Your task to perform on an android device: Open Youtube and go to "Your channel" Image 0: 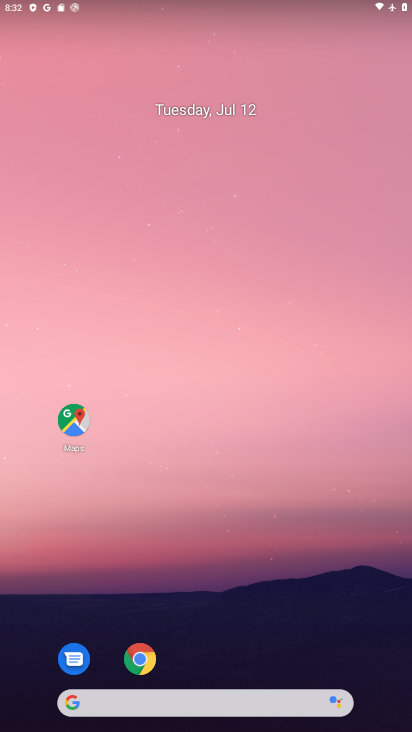
Step 0: drag from (276, 664) to (286, 238)
Your task to perform on an android device: Open Youtube and go to "Your channel" Image 1: 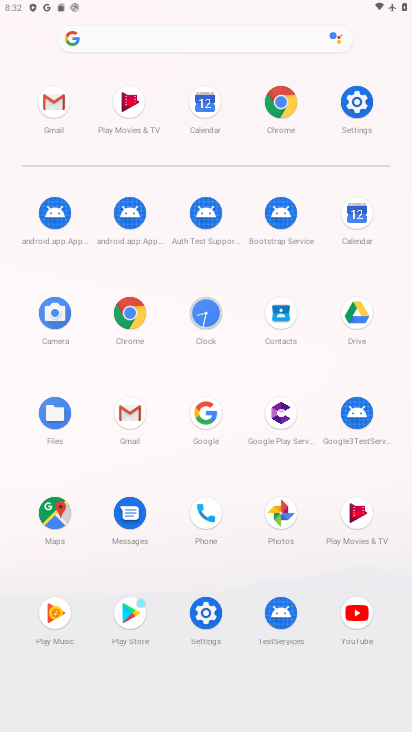
Step 1: click (360, 615)
Your task to perform on an android device: Open Youtube and go to "Your channel" Image 2: 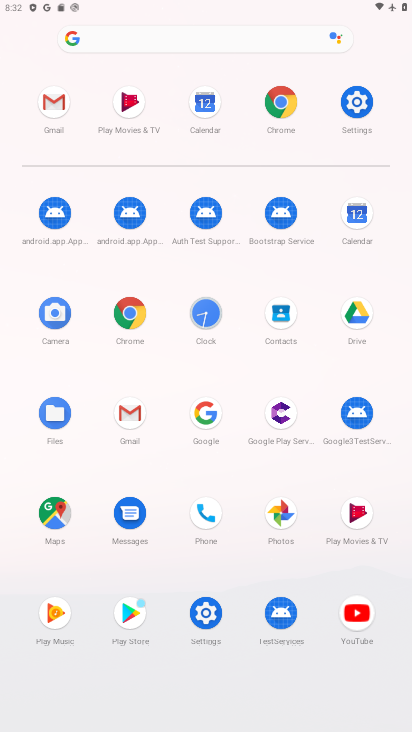
Step 2: click (360, 614)
Your task to perform on an android device: Open Youtube and go to "Your channel" Image 3: 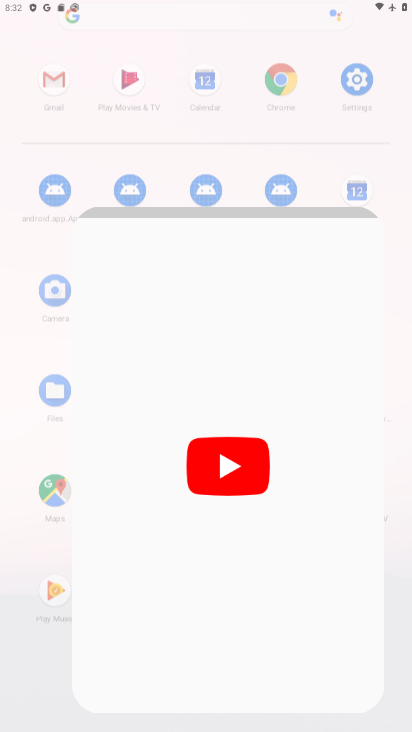
Step 3: click (361, 613)
Your task to perform on an android device: Open Youtube and go to "Your channel" Image 4: 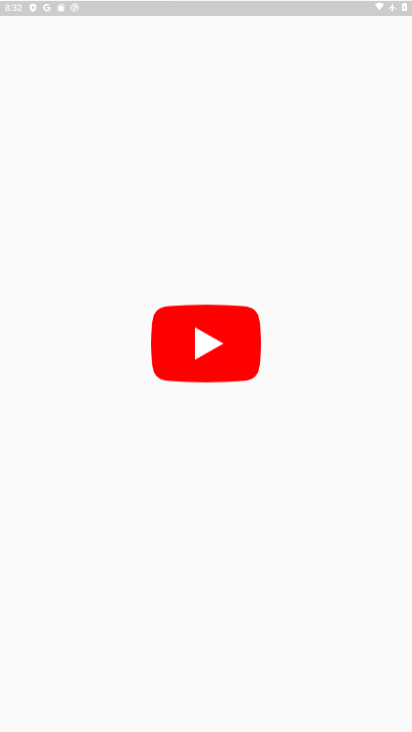
Step 4: click (363, 613)
Your task to perform on an android device: Open Youtube and go to "Your channel" Image 5: 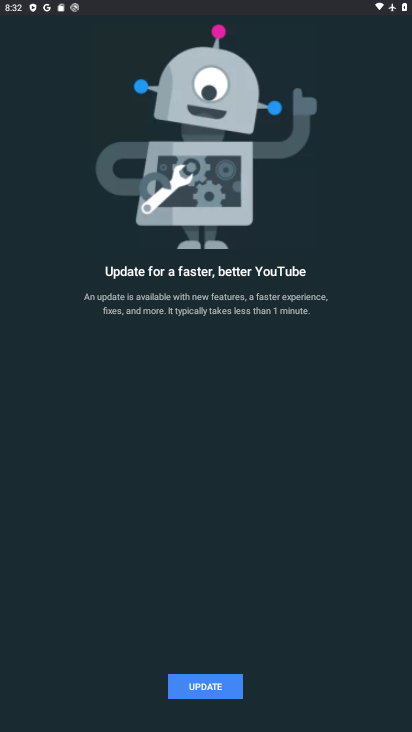
Step 5: press back button
Your task to perform on an android device: Open Youtube and go to "Your channel" Image 6: 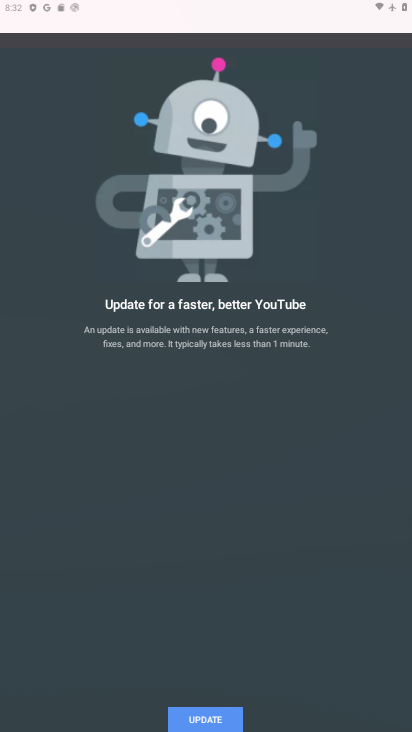
Step 6: press back button
Your task to perform on an android device: Open Youtube and go to "Your channel" Image 7: 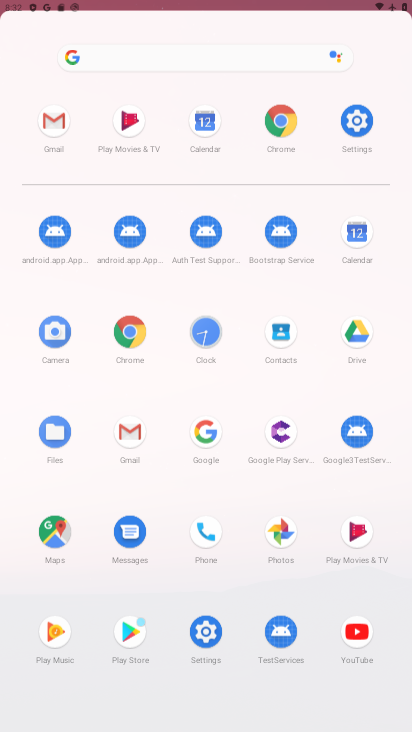
Step 7: press back button
Your task to perform on an android device: Open Youtube and go to "Your channel" Image 8: 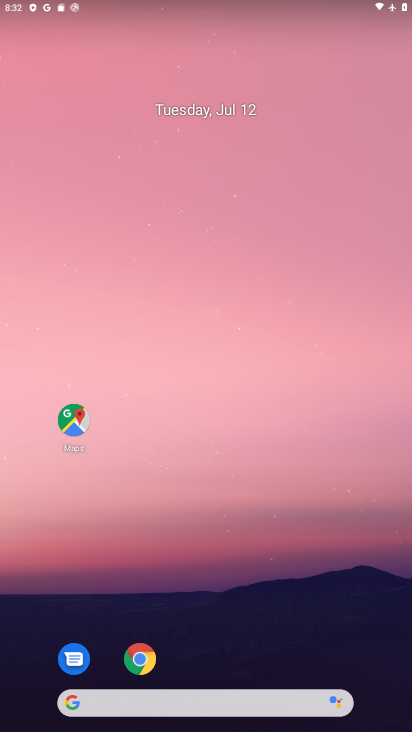
Step 8: drag from (143, 408) to (107, 36)
Your task to perform on an android device: Open Youtube and go to "Your channel" Image 9: 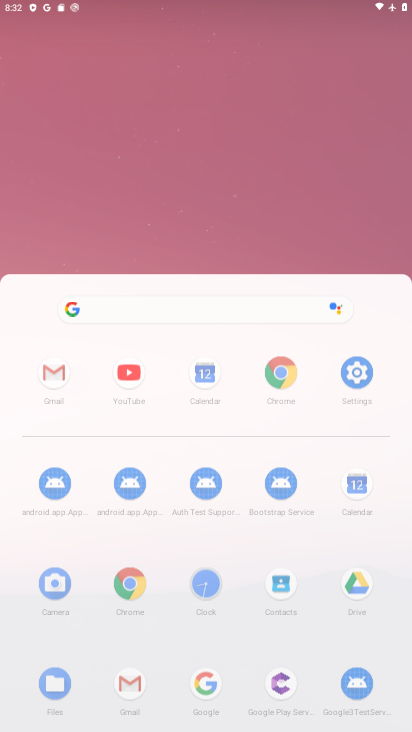
Step 9: drag from (318, 508) to (169, 69)
Your task to perform on an android device: Open Youtube and go to "Your channel" Image 10: 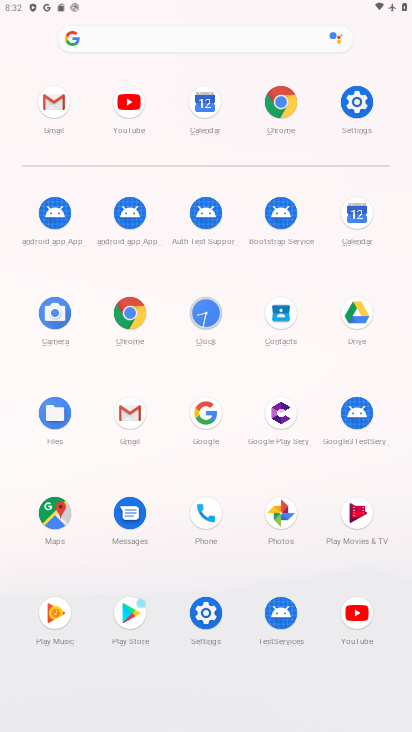
Step 10: click (355, 607)
Your task to perform on an android device: Open Youtube and go to "Your channel" Image 11: 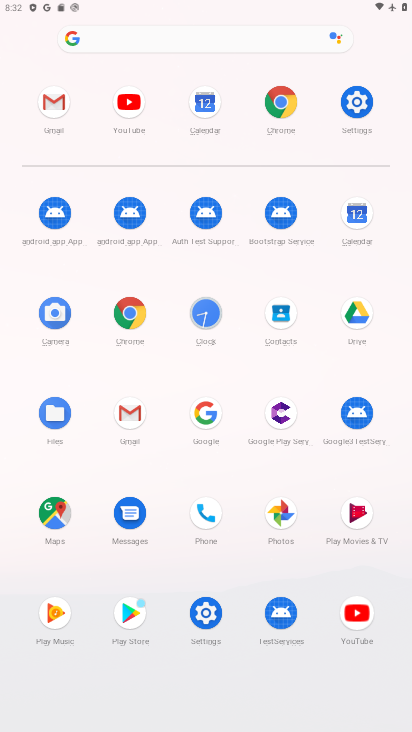
Step 11: click (358, 608)
Your task to perform on an android device: Open Youtube and go to "Your channel" Image 12: 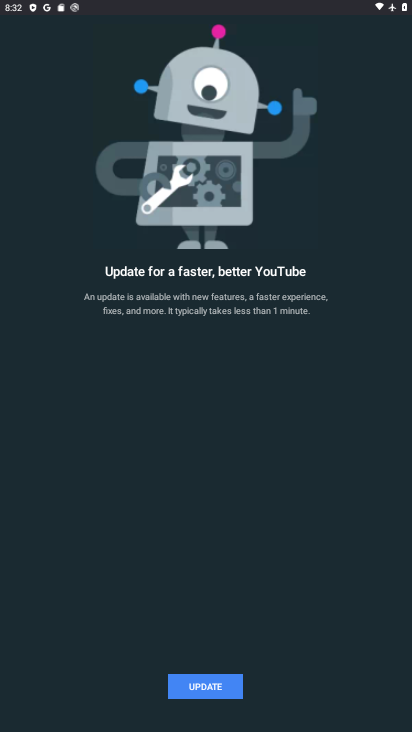
Step 12: click (359, 609)
Your task to perform on an android device: Open Youtube and go to "Your channel" Image 13: 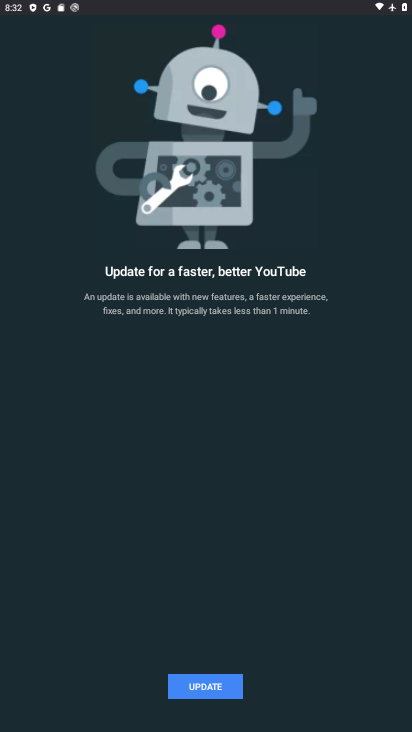
Step 13: click (359, 609)
Your task to perform on an android device: Open Youtube and go to "Your channel" Image 14: 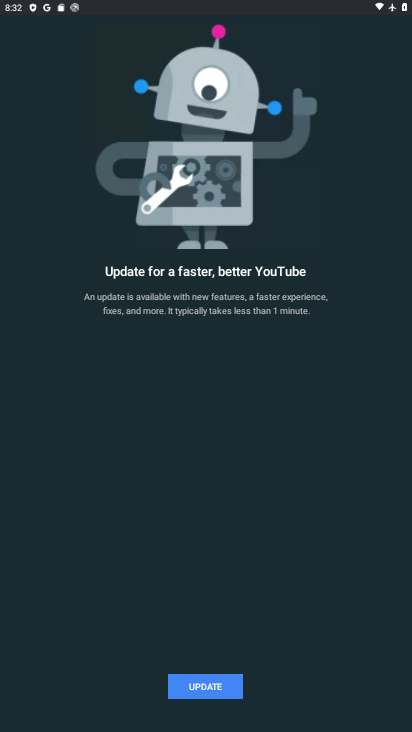
Step 14: click (213, 661)
Your task to perform on an android device: Open Youtube and go to "Your channel" Image 15: 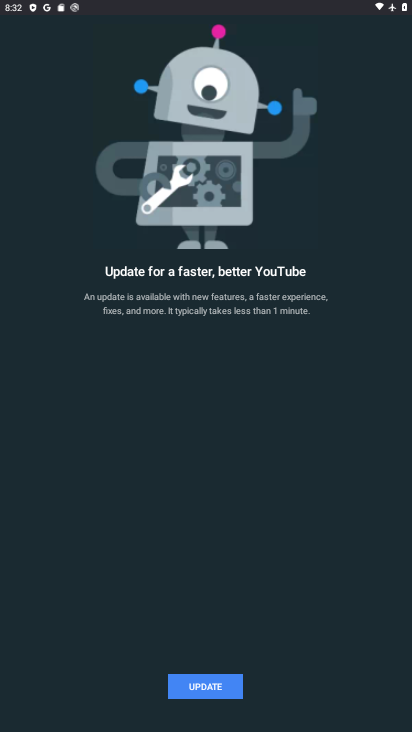
Step 15: click (217, 679)
Your task to perform on an android device: Open Youtube and go to "Your channel" Image 16: 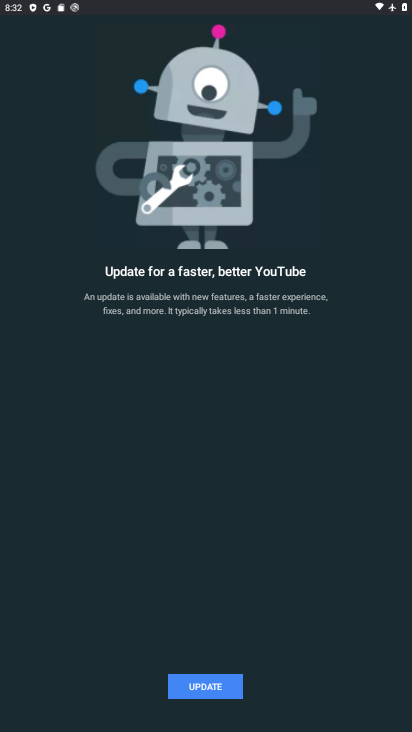
Step 16: click (209, 686)
Your task to perform on an android device: Open Youtube and go to "Your channel" Image 17: 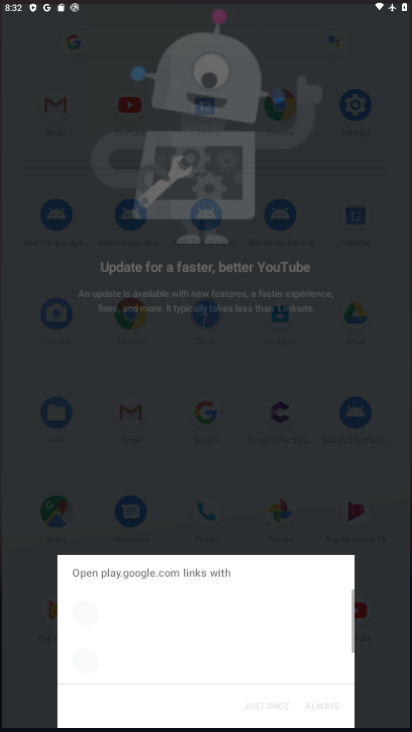
Step 17: click (211, 682)
Your task to perform on an android device: Open Youtube and go to "Your channel" Image 18: 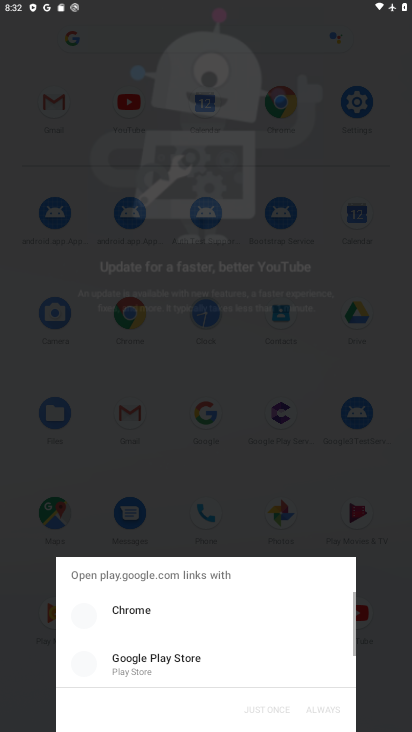
Step 18: click (212, 682)
Your task to perform on an android device: Open Youtube and go to "Your channel" Image 19: 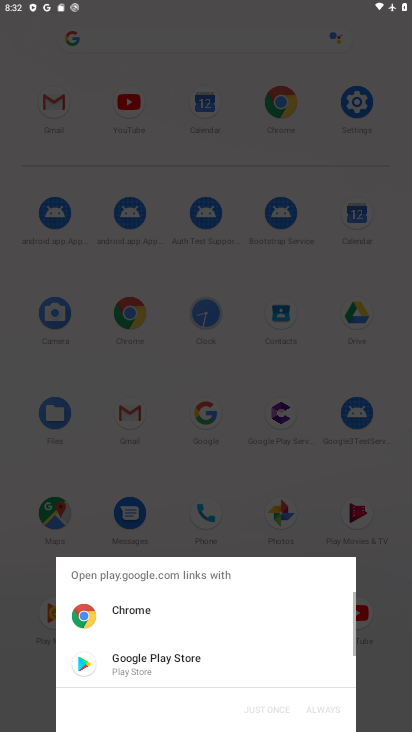
Step 19: click (230, 681)
Your task to perform on an android device: Open Youtube and go to "Your channel" Image 20: 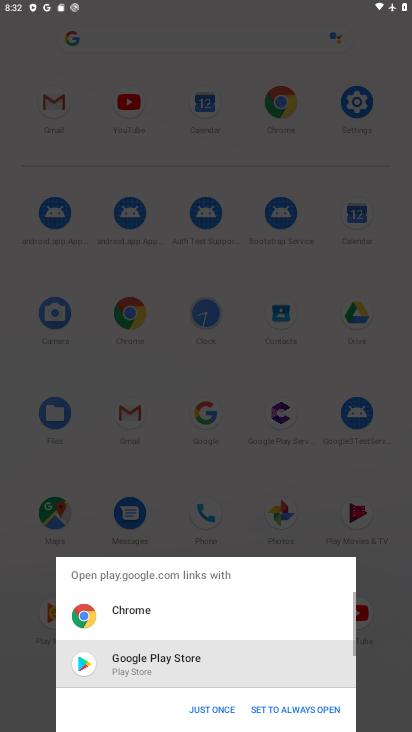
Step 20: click (117, 601)
Your task to perform on an android device: Open Youtube and go to "Your channel" Image 21: 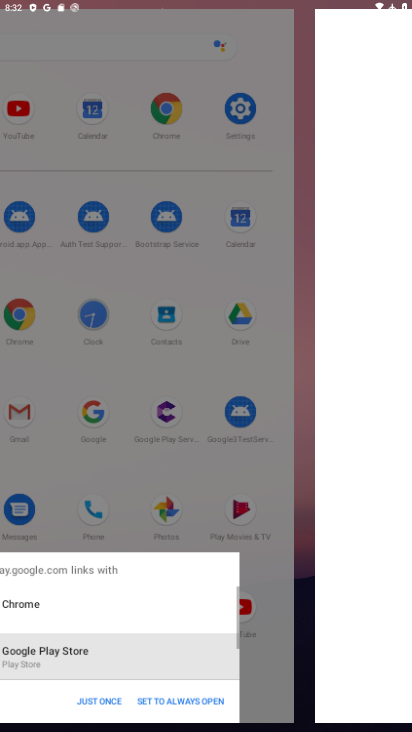
Step 21: click (120, 603)
Your task to perform on an android device: Open Youtube and go to "Your channel" Image 22: 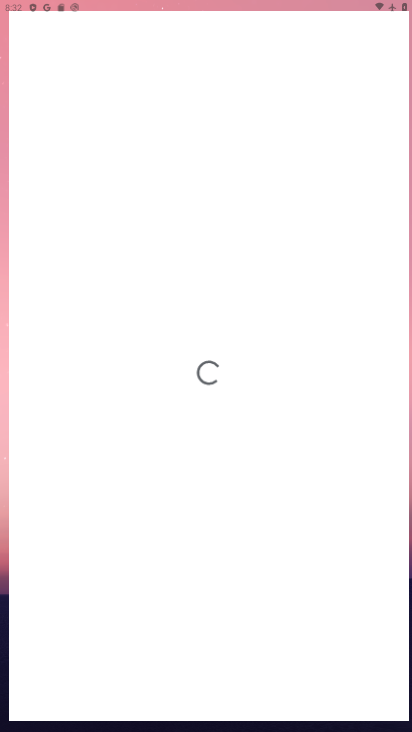
Step 22: click (124, 608)
Your task to perform on an android device: Open Youtube and go to "Your channel" Image 23: 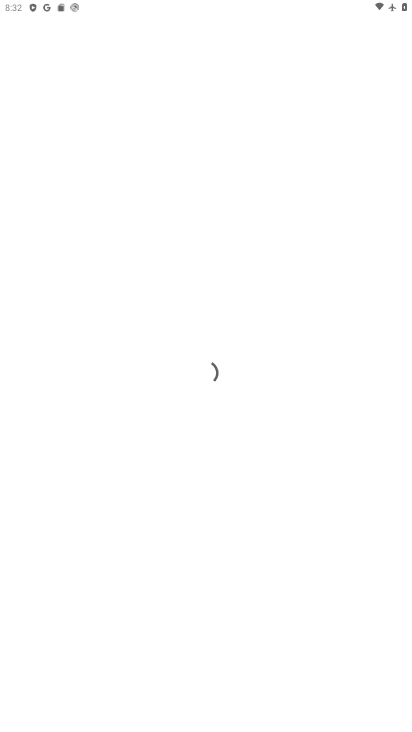
Step 23: click (126, 609)
Your task to perform on an android device: Open Youtube and go to "Your channel" Image 24: 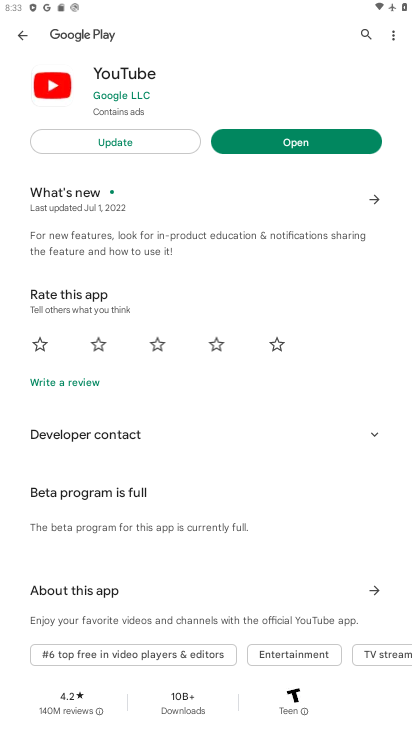
Step 24: click (165, 136)
Your task to perform on an android device: Open Youtube and go to "Your channel" Image 25: 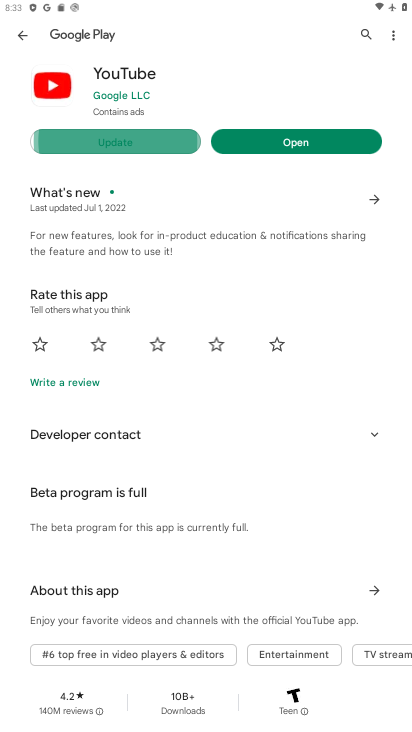
Step 25: click (165, 136)
Your task to perform on an android device: Open Youtube and go to "Your channel" Image 26: 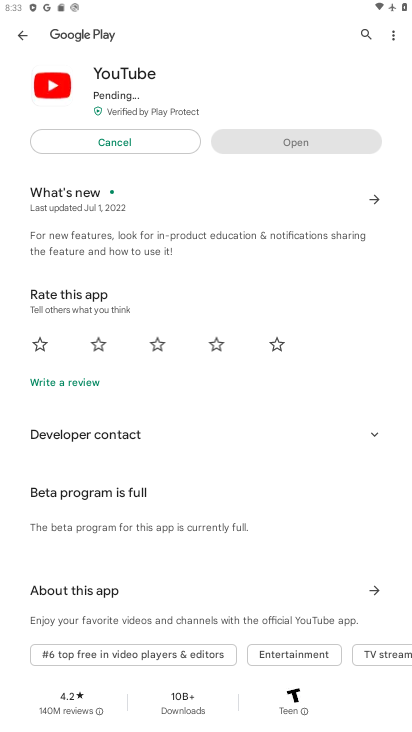
Step 26: click (165, 136)
Your task to perform on an android device: Open Youtube and go to "Your channel" Image 27: 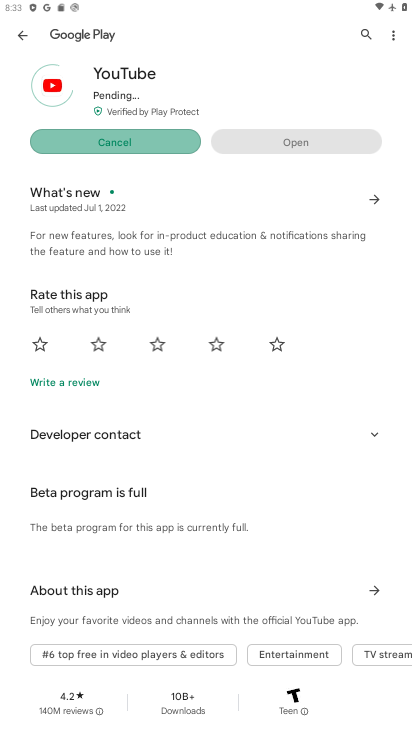
Step 27: click (165, 136)
Your task to perform on an android device: Open Youtube and go to "Your channel" Image 28: 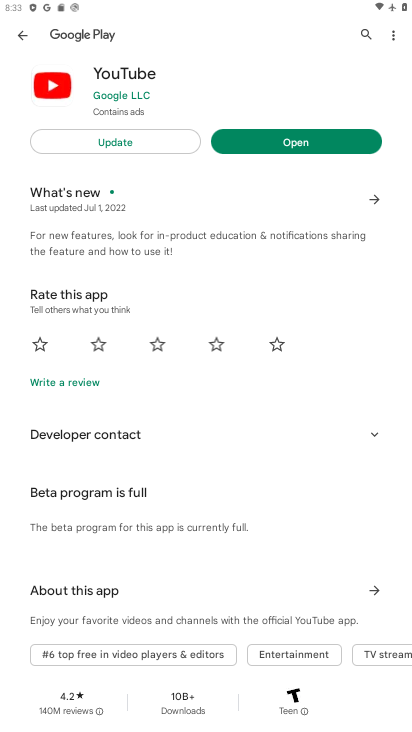
Step 28: click (291, 138)
Your task to perform on an android device: Open Youtube and go to "Your channel" Image 29: 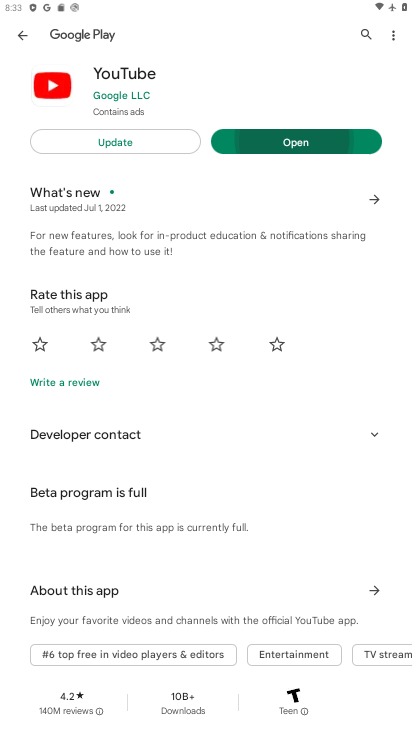
Step 29: click (292, 139)
Your task to perform on an android device: Open Youtube and go to "Your channel" Image 30: 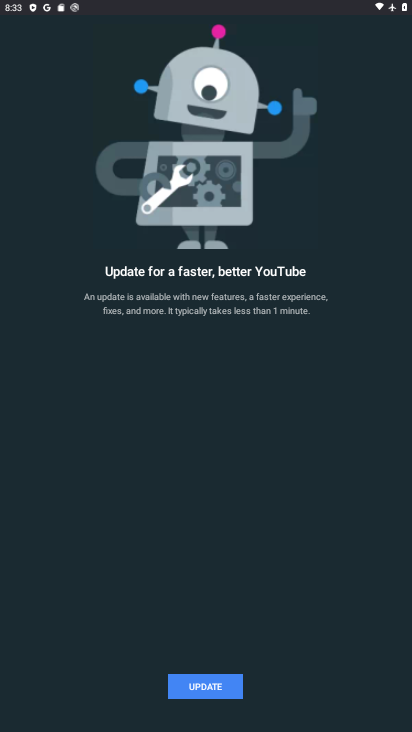
Step 30: click (208, 687)
Your task to perform on an android device: Open Youtube and go to "Your channel" Image 31: 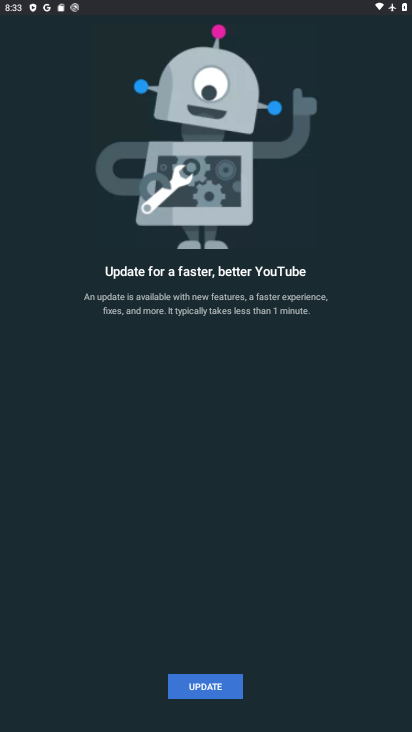
Step 31: click (212, 685)
Your task to perform on an android device: Open Youtube and go to "Your channel" Image 32: 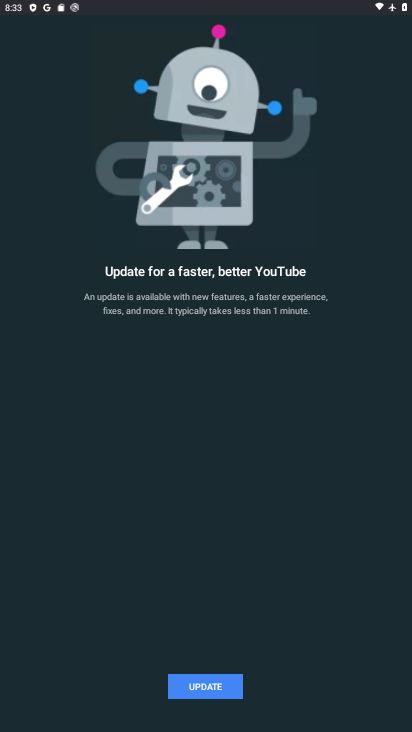
Step 32: click (215, 682)
Your task to perform on an android device: Open Youtube and go to "Your channel" Image 33: 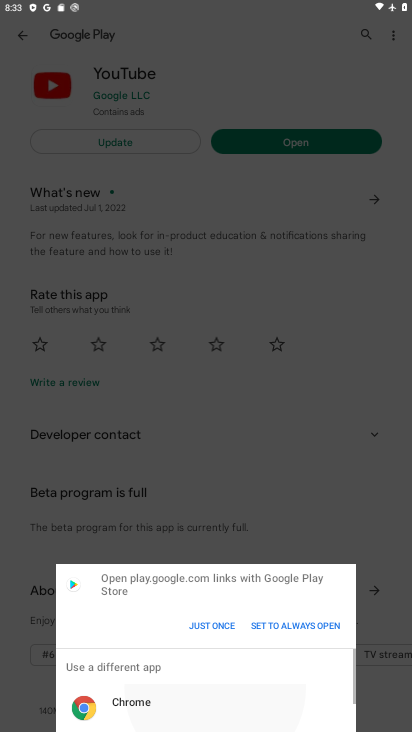
Step 33: click (217, 681)
Your task to perform on an android device: Open Youtube and go to "Your channel" Image 34: 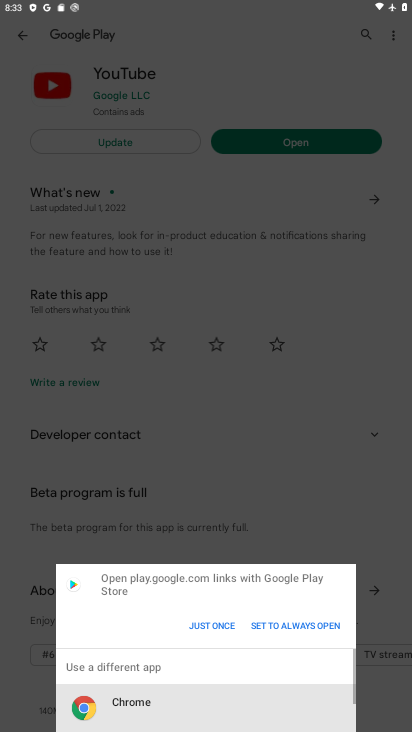
Step 34: click (217, 681)
Your task to perform on an android device: Open Youtube and go to "Your channel" Image 35: 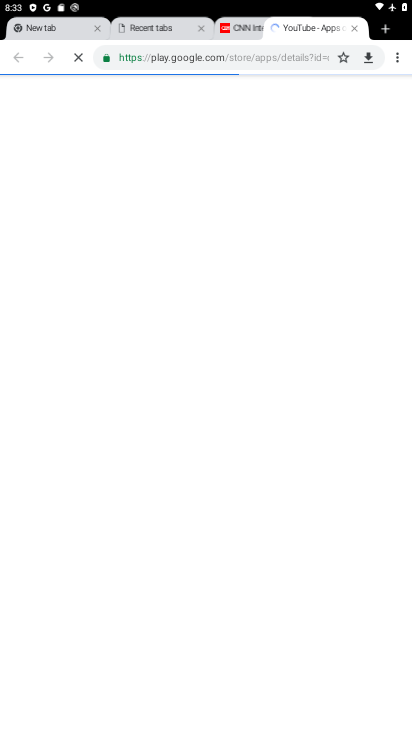
Step 35: click (296, 313)
Your task to perform on an android device: Open Youtube and go to "Your channel" Image 36: 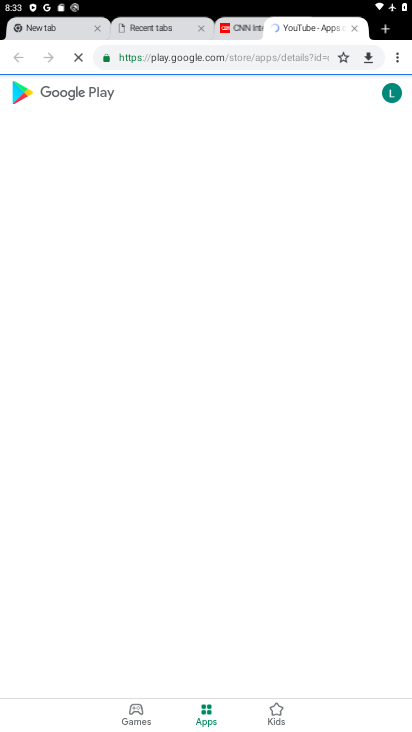
Step 36: task complete